Your task to perform on an android device: Open privacy settings Image 0: 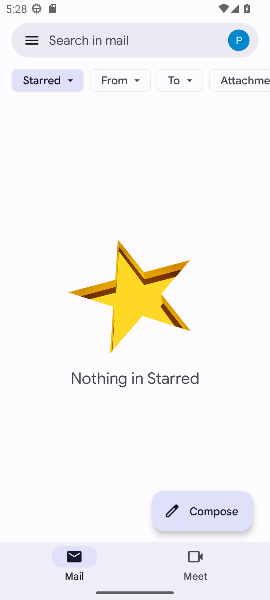
Step 0: press home button
Your task to perform on an android device: Open privacy settings Image 1: 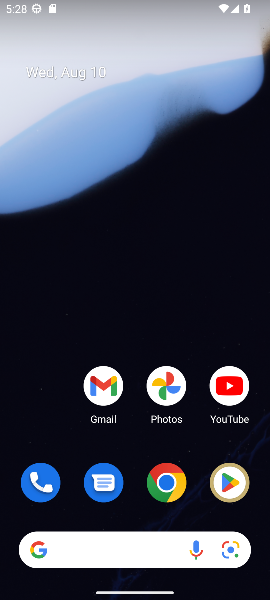
Step 1: drag from (48, 421) to (60, 52)
Your task to perform on an android device: Open privacy settings Image 2: 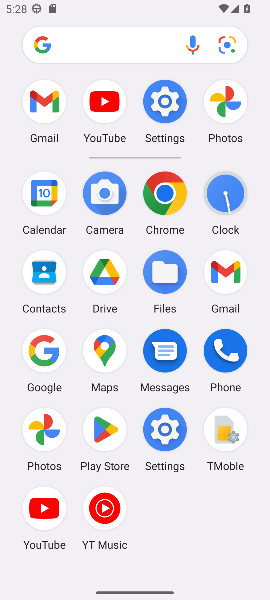
Step 2: click (161, 428)
Your task to perform on an android device: Open privacy settings Image 3: 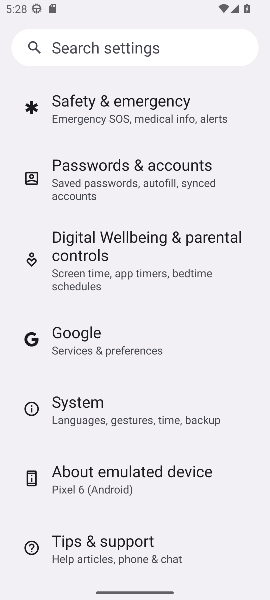
Step 3: click (177, 133)
Your task to perform on an android device: Open privacy settings Image 4: 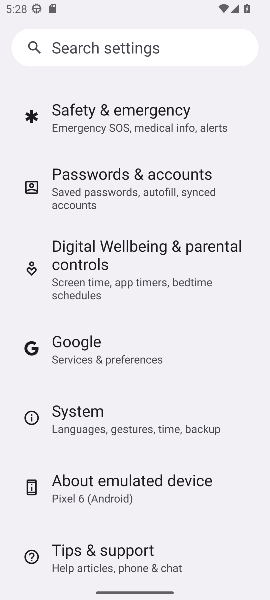
Step 4: drag from (187, 197) to (149, 511)
Your task to perform on an android device: Open privacy settings Image 5: 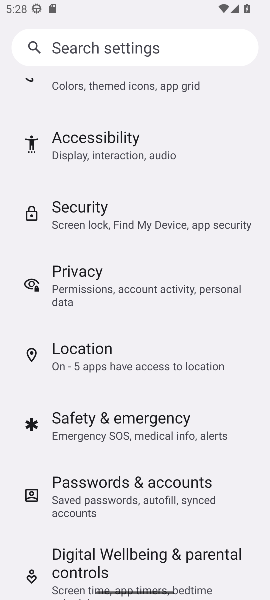
Step 5: click (167, 284)
Your task to perform on an android device: Open privacy settings Image 6: 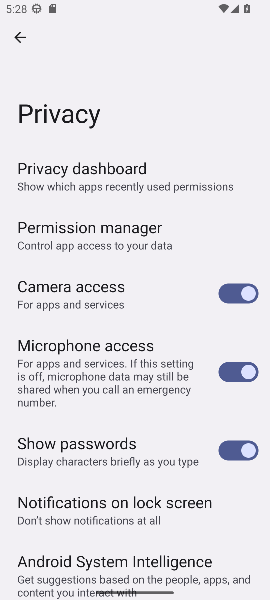
Step 6: drag from (147, 450) to (170, 237)
Your task to perform on an android device: Open privacy settings Image 7: 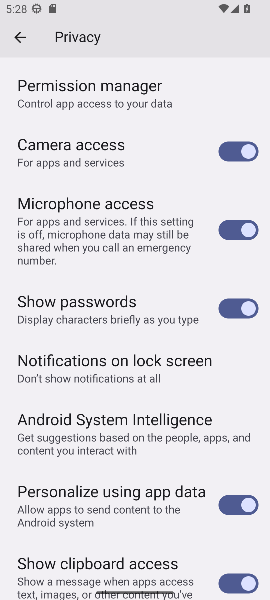
Step 7: drag from (144, 429) to (159, 148)
Your task to perform on an android device: Open privacy settings Image 8: 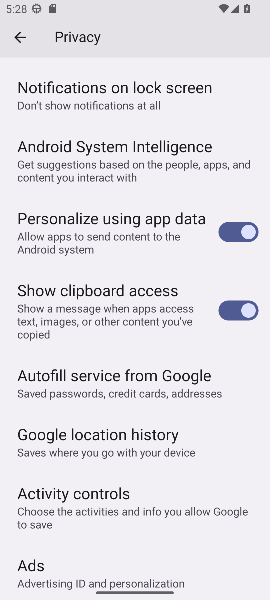
Step 8: click (129, 147)
Your task to perform on an android device: Open privacy settings Image 9: 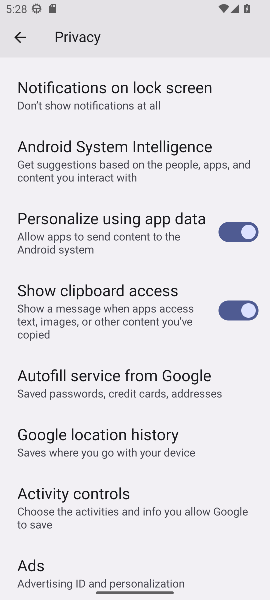
Step 9: task complete